Your task to perform on an android device: Add "usb-a to usb-b" to the cart on bestbuy.com Image 0: 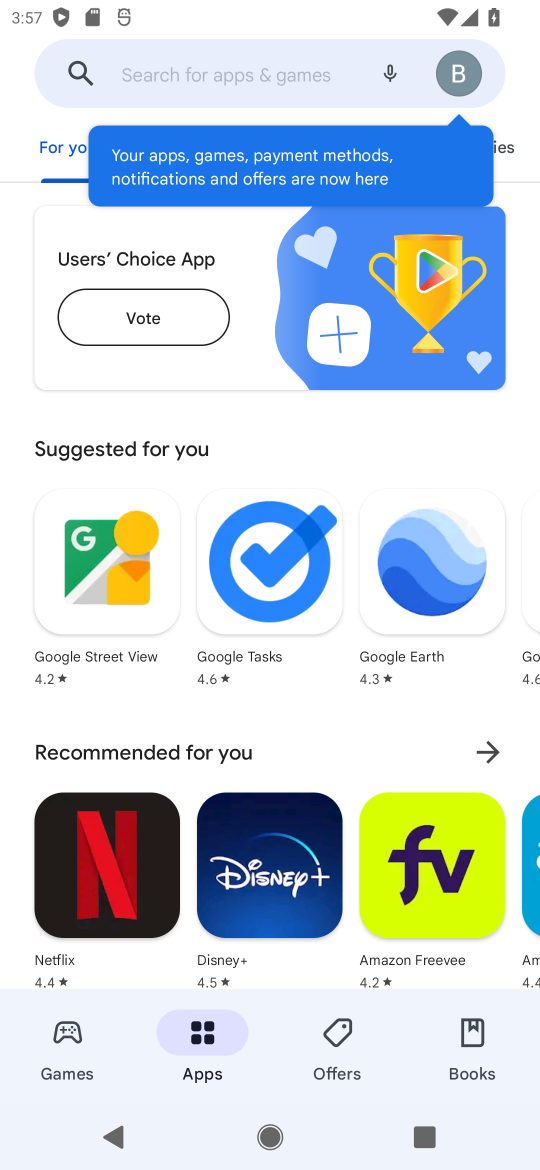
Step 0: press home button
Your task to perform on an android device: Add "usb-a to usb-b" to the cart on bestbuy.com Image 1: 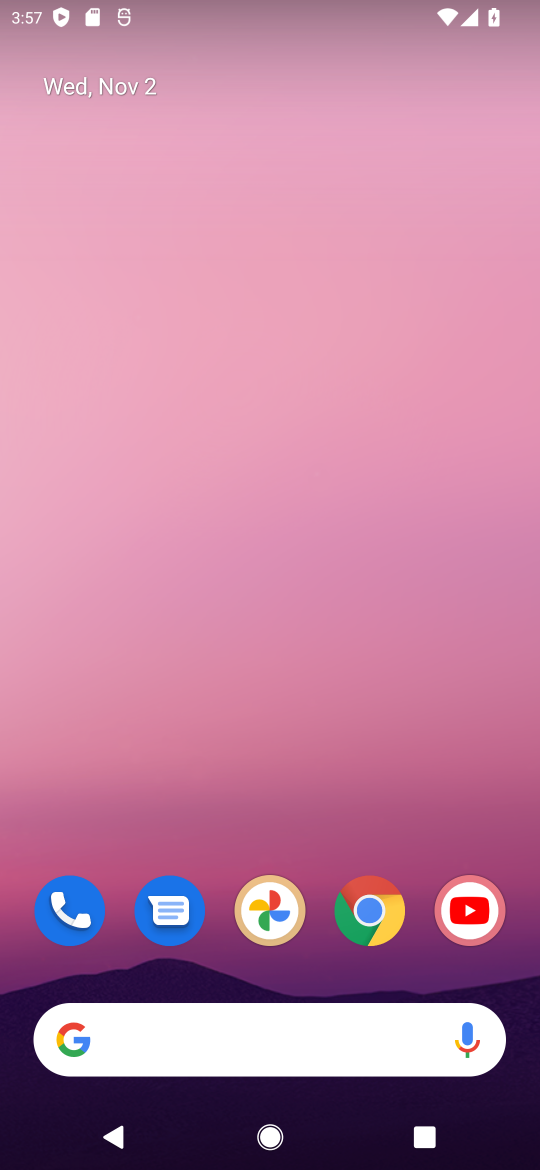
Step 1: click (379, 919)
Your task to perform on an android device: Add "usb-a to usb-b" to the cart on bestbuy.com Image 2: 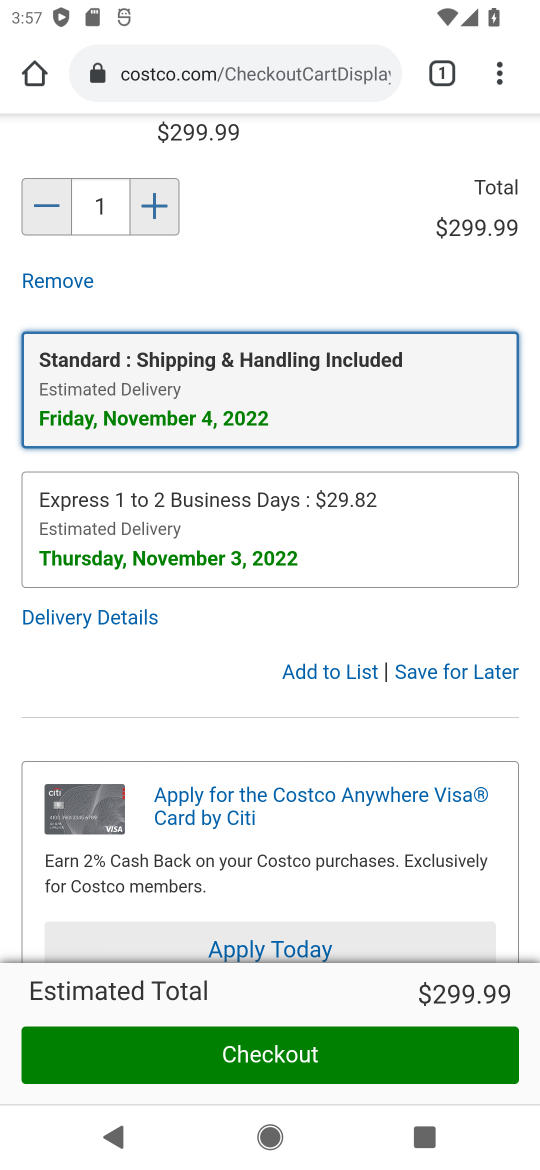
Step 2: click (154, 68)
Your task to perform on an android device: Add "usb-a to usb-b" to the cart on bestbuy.com Image 3: 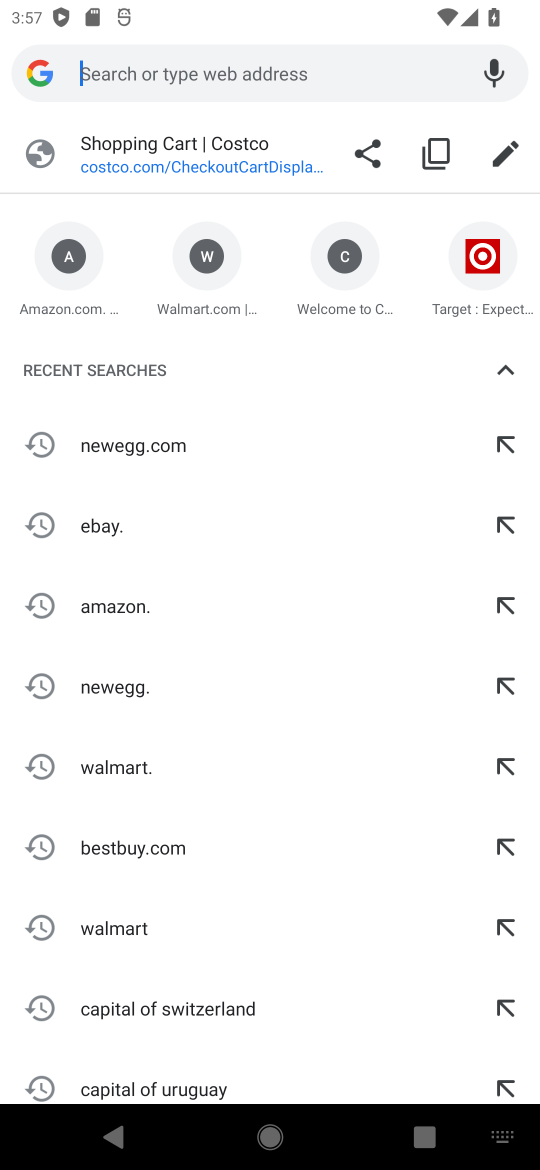
Step 3: type "bestbuy.com"
Your task to perform on an android device: Add "usb-a to usb-b" to the cart on bestbuy.com Image 4: 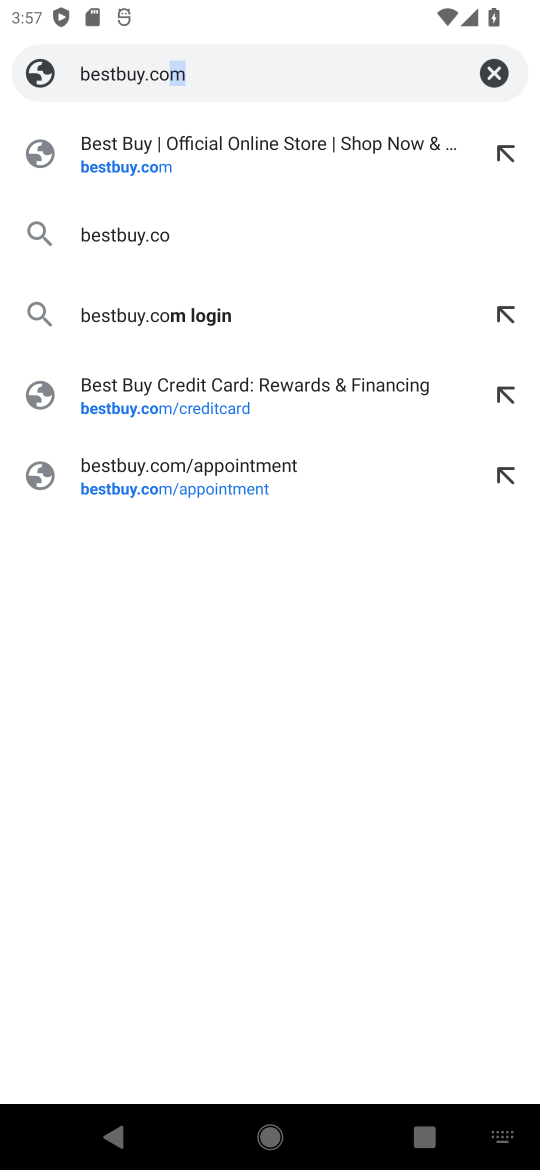
Step 4: type ""
Your task to perform on an android device: Add "usb-a to usb-b" to the cart on bestbuy.com Image 5: 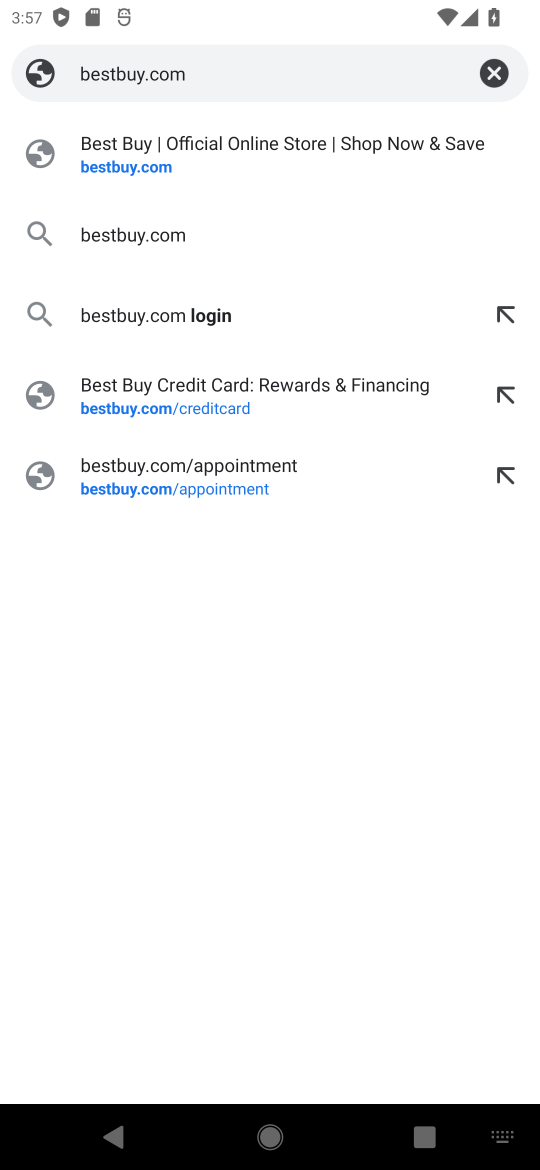
Step 5: click (87, 155)
Your task to perform on an android device: Add "usb-a to usb-b" to the cart on bestbuy.com Image 6: 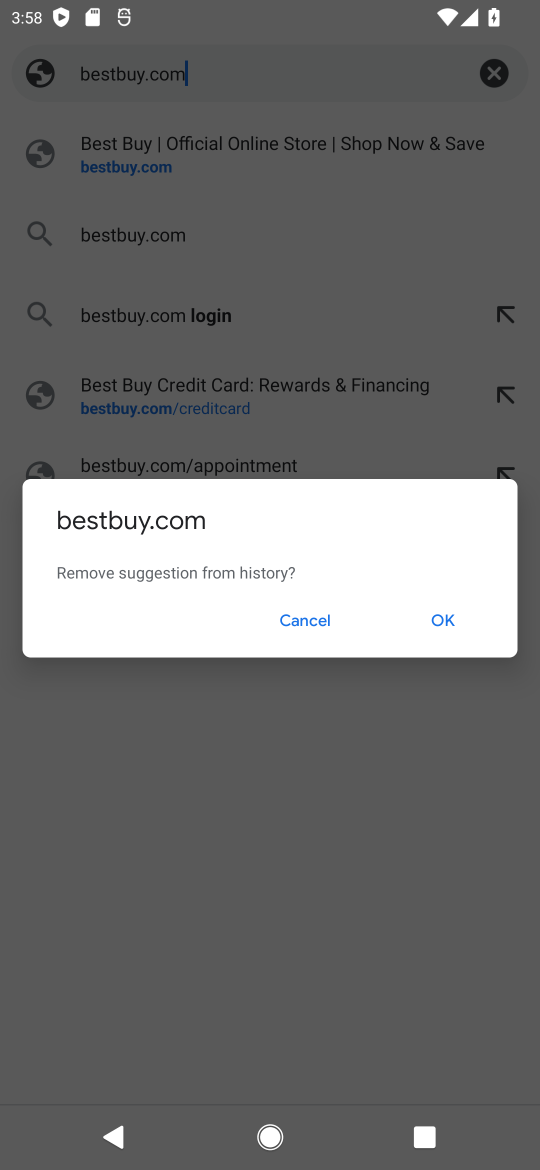
Step 6: click (422, 613)
Your task to perform on an android device: Add "usb-a to usb-b" to the cart on bestbuy.com Image 7: 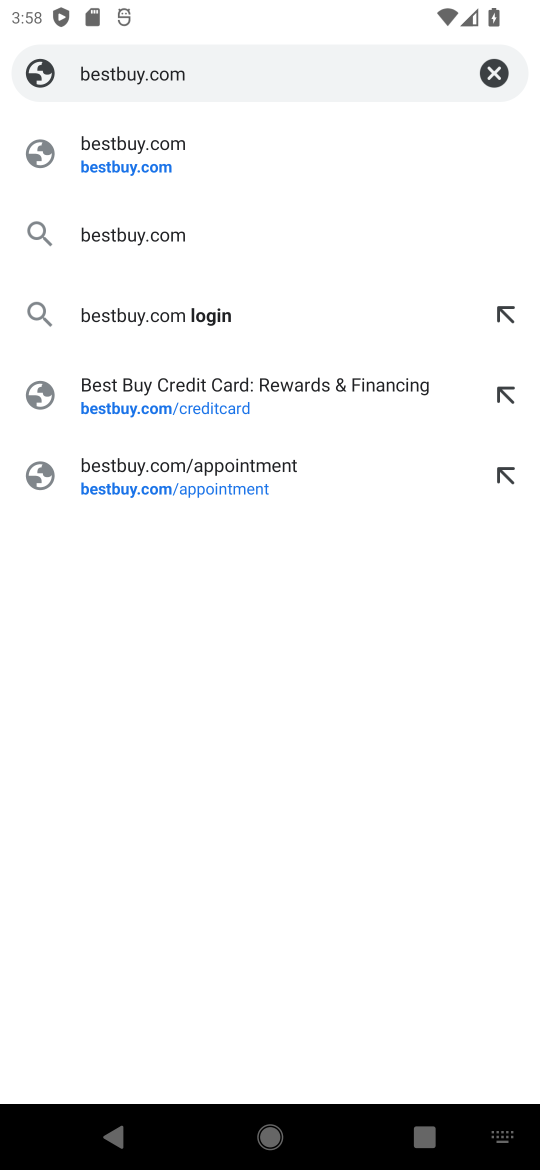
Step 7: click (196, 167)
Your task to perform on an android device: Add "usb-a to usb-b" to the cart on bestbuy.com Image 8: 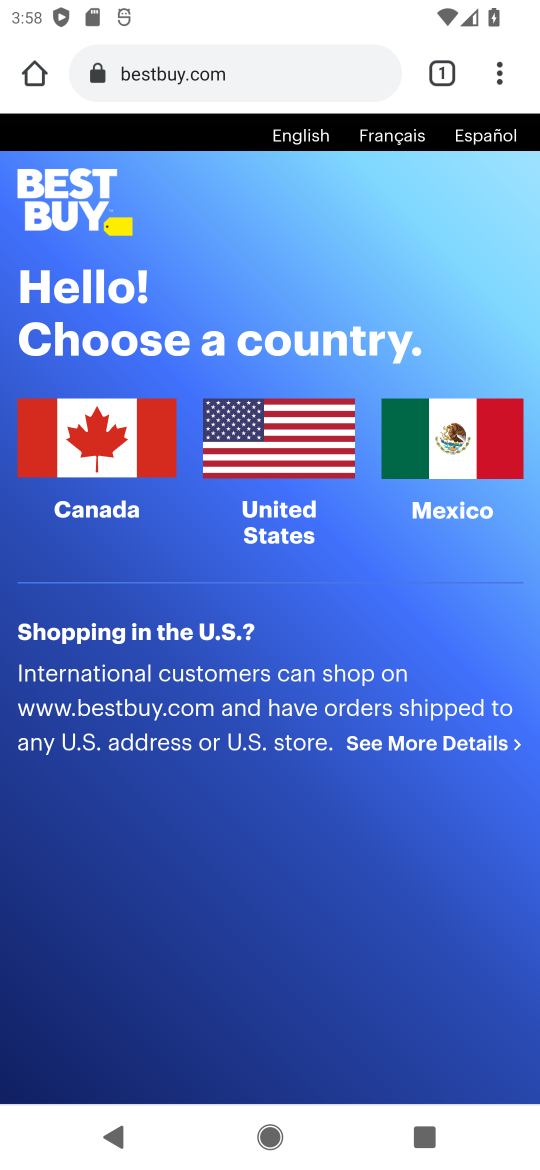
Step 8: click (279, 483)
Your task to perform on an android device: Add "usb-a to usb-b" to the cart on bestbuy.com Image 9: 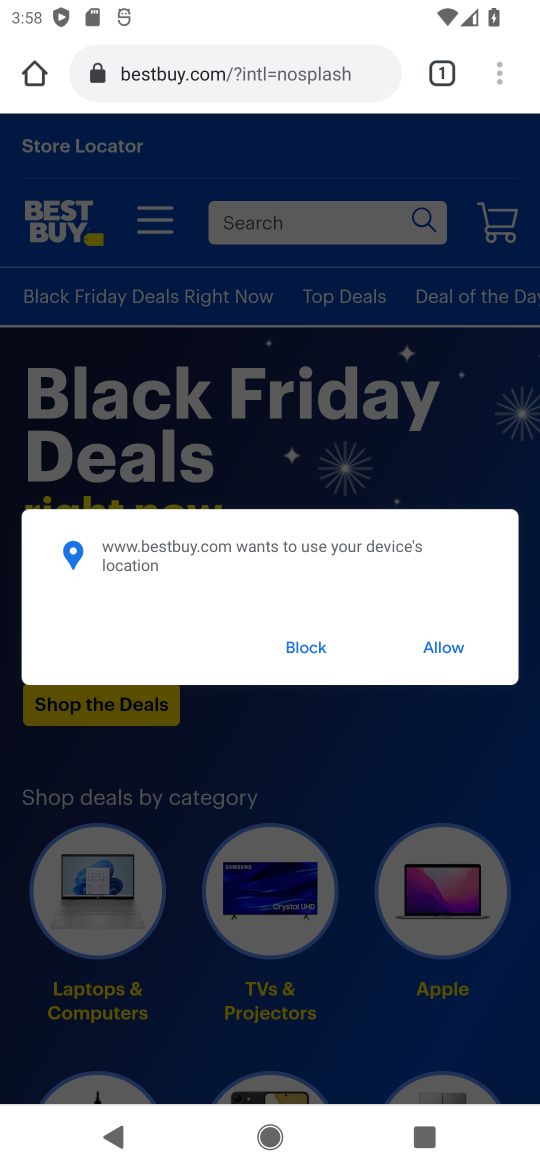
Step 9: click (317, 640)
Your task to perform on an android device: Add "usb-a to usb-b" to the cart on bestbuy.com Image 10: 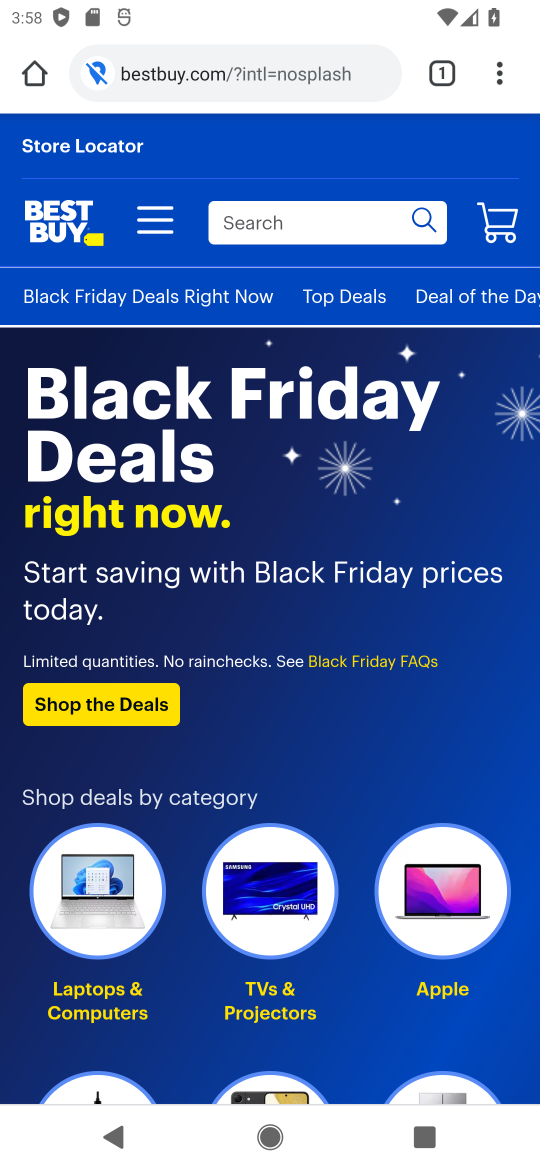
Step 10: click (341, 229)
Your task to perform on an android device: Add "usb-a to usb-b" to the cart on bestbuy.com Image 11: 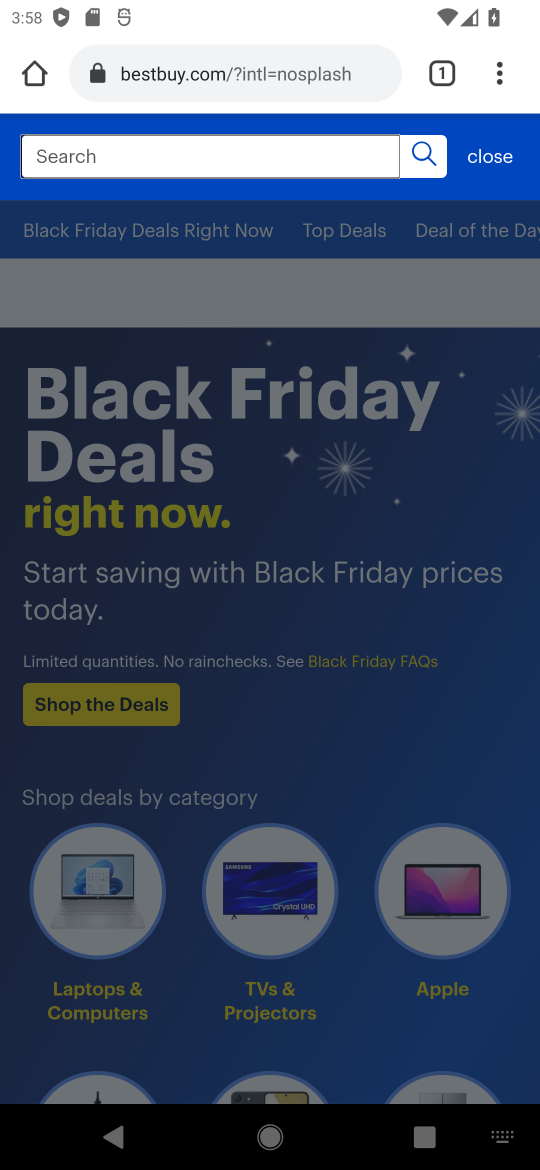
Step 11: click (229, 161)
Your task to perform on an android device: Add "usb-a to usb-b" to the cart on bestbuy.com Image 12: 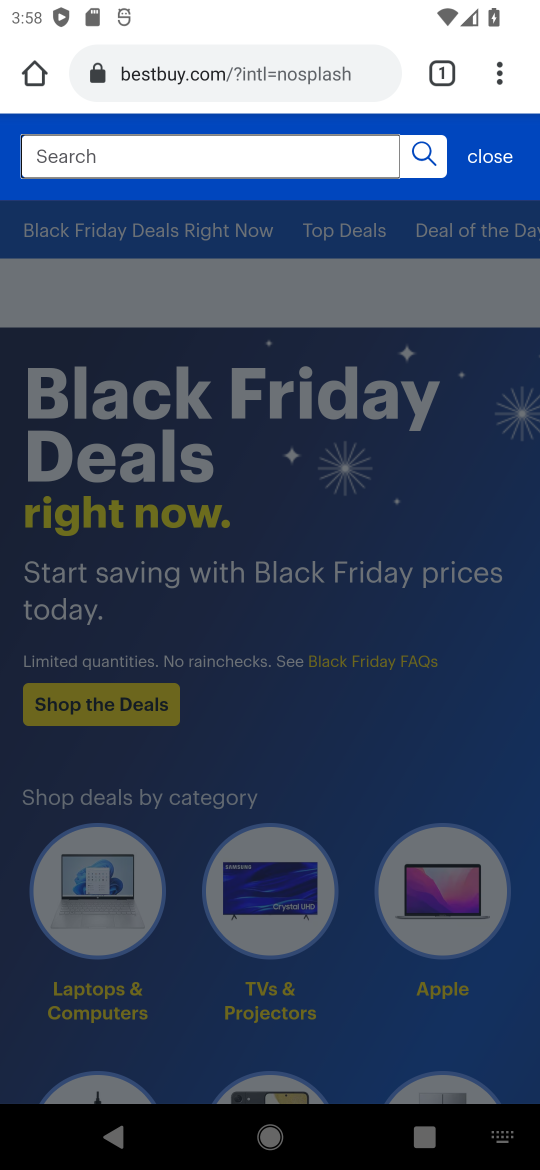
Step 12: type "usb-a to usb-b"
Your task to perform on an android device: Add "usb-a to usb-b" to the cart on bestbuy.com Image 13: 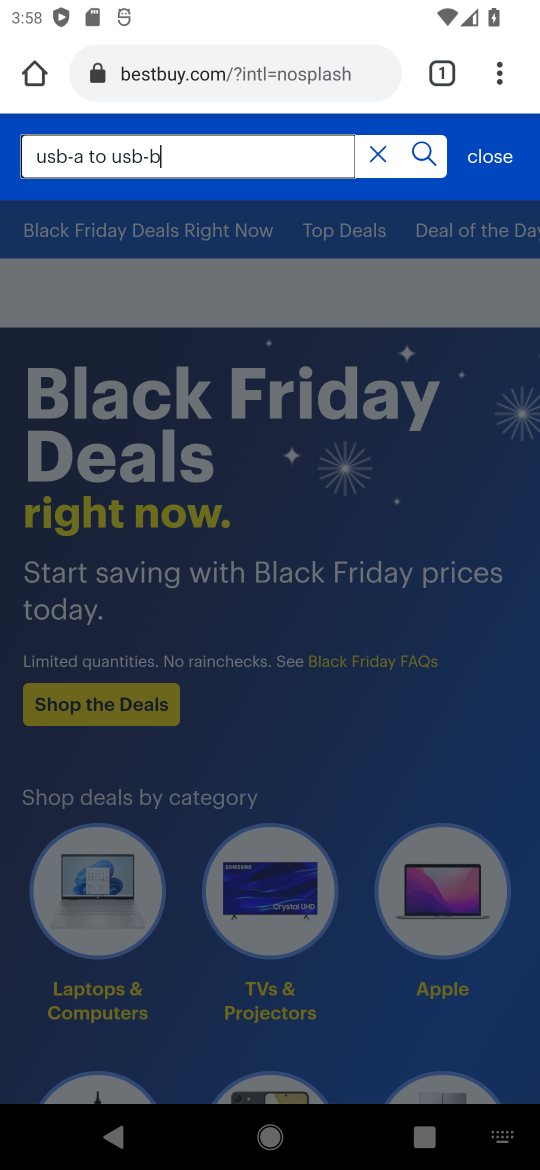
Step 13: type ""
Your task to perform on an android device: Add "usb-a to usb-b" to the cart on bestbuy.com Image 14: 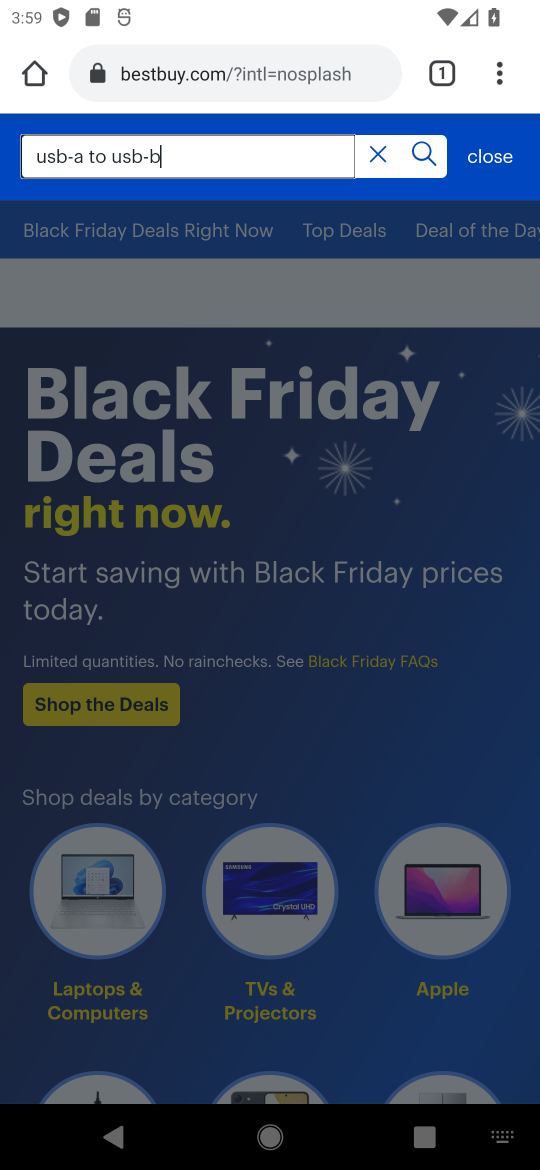
Step 14: click (428, 142)
Your task to perform on an android device: Add "usb-a to usb-b" to the cart on bestbuy.com Image 15: 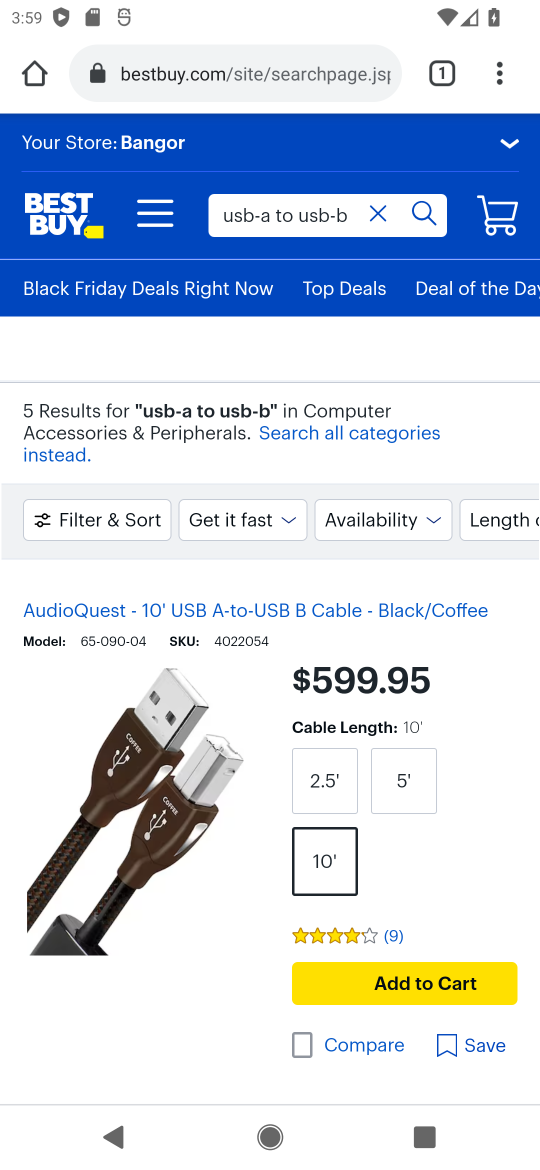
Step 15: click (366, 975)
Your task to perform on an android device: Add "usb-a to usb-b" to the cart on bestbuy.com Image 16: 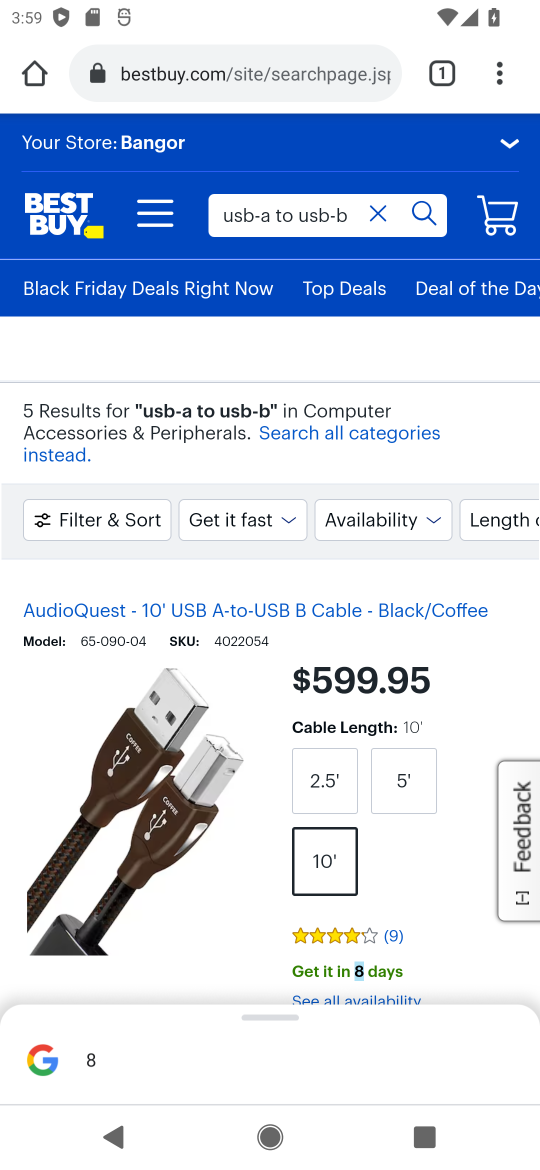
Step 16: drag from (211, 853) to (296, 382)
Your task to perform on an android device: Add "usb-a to usb-b" to the cart on bestbuy.com Image 17: 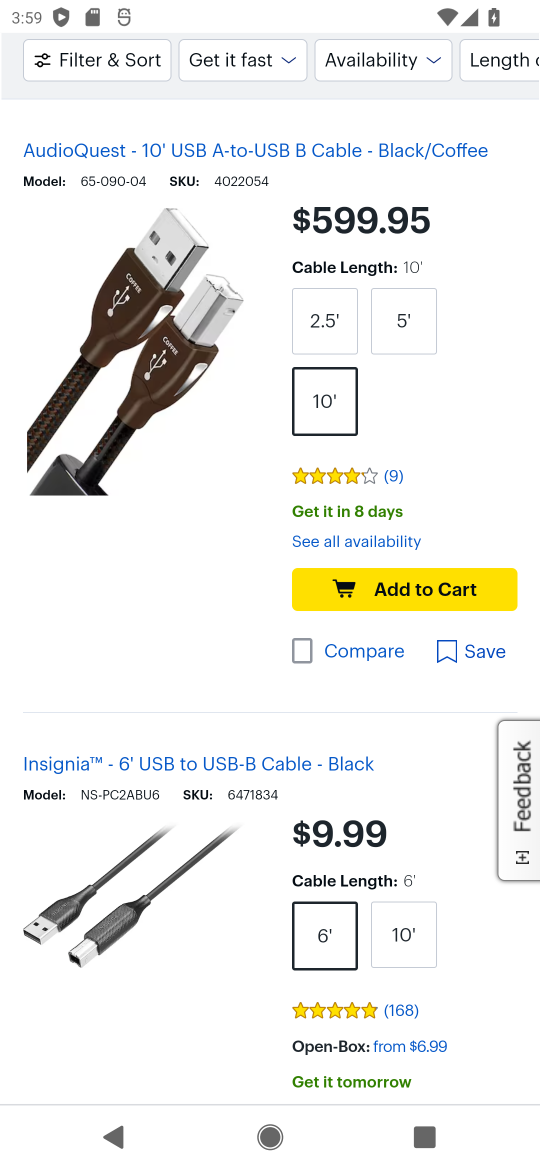
Step 17: click (382, 590)
Your task to perform on an android device: Add "usb-a to usb-b" to the cart on bestbuy.com Image 18: 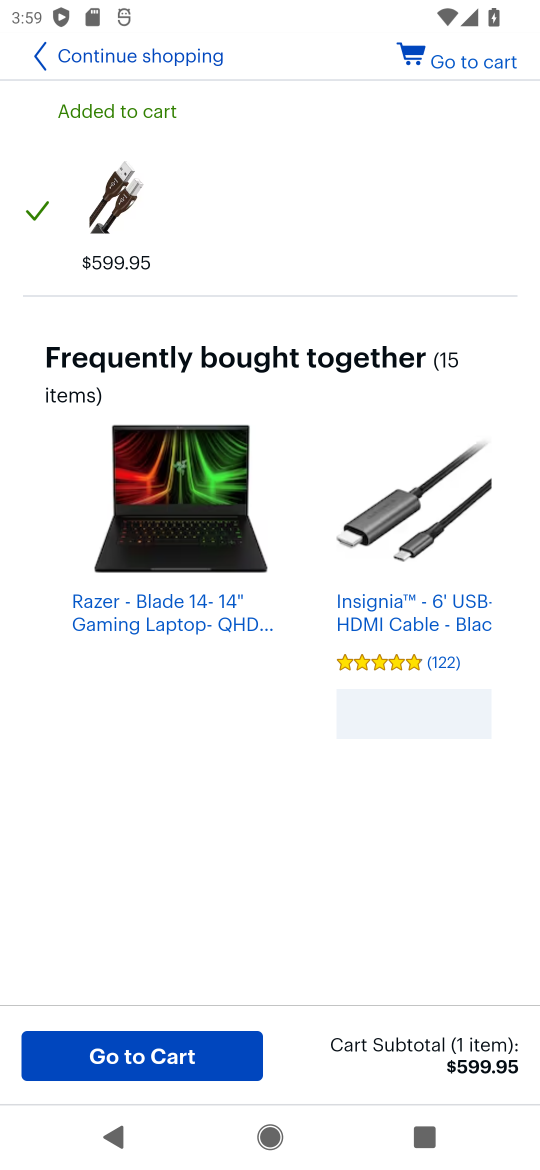
Step 18: click (211, 1047)
Your task to perform on an android device: Add "usb-a to usb-b" to the cart on bestbuy.com Image 19: 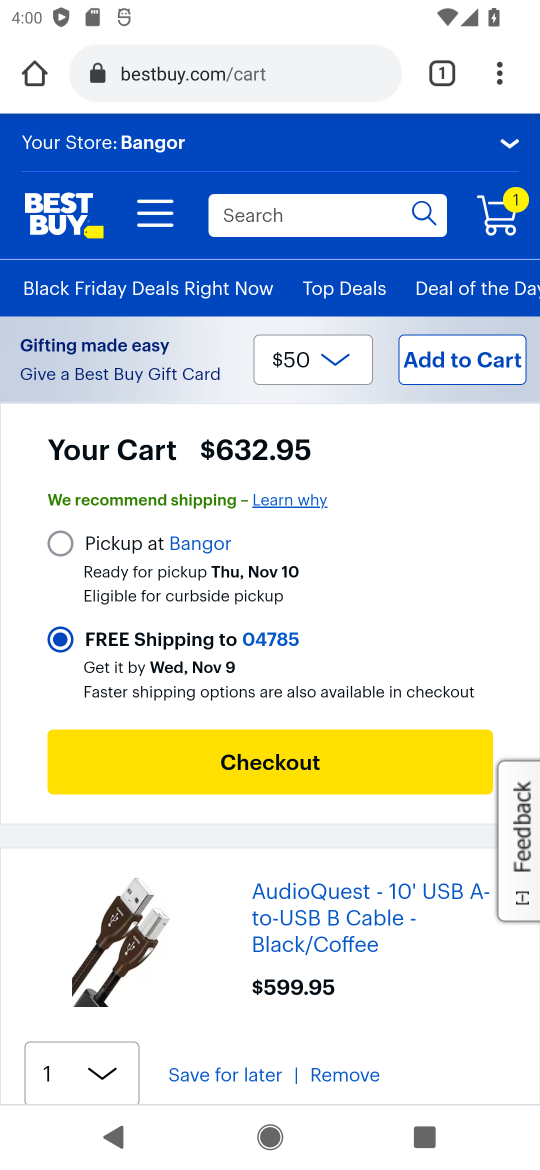
Step 19: click (206, 751)
Your task to perform on an android device: Add "usb-a to usb-b" to the cart on bestbuy.com Image 20: 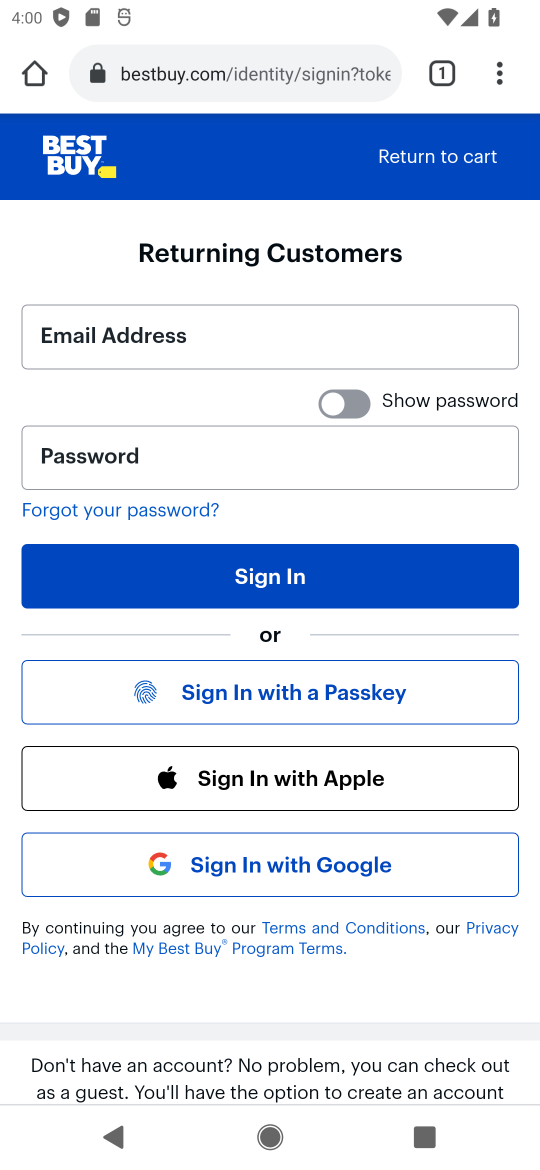
Step 20: drag from (290, 894) to (388, 341)
Your task to perform on an android device: Add "usb-a to usb-b" to the cart on bestbuy.com Image 21: 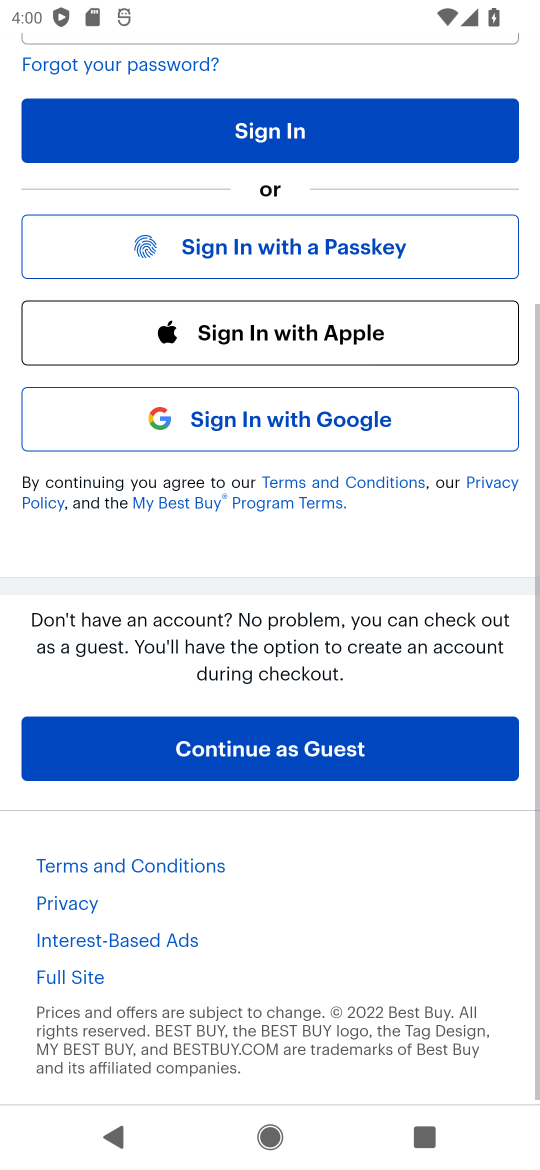
Step 21: drag from (296, 514) to (276, 767)
Your task to perform on an android device: Add "usb-a to usb-b" to the cart on bestbuy.com Image 22: 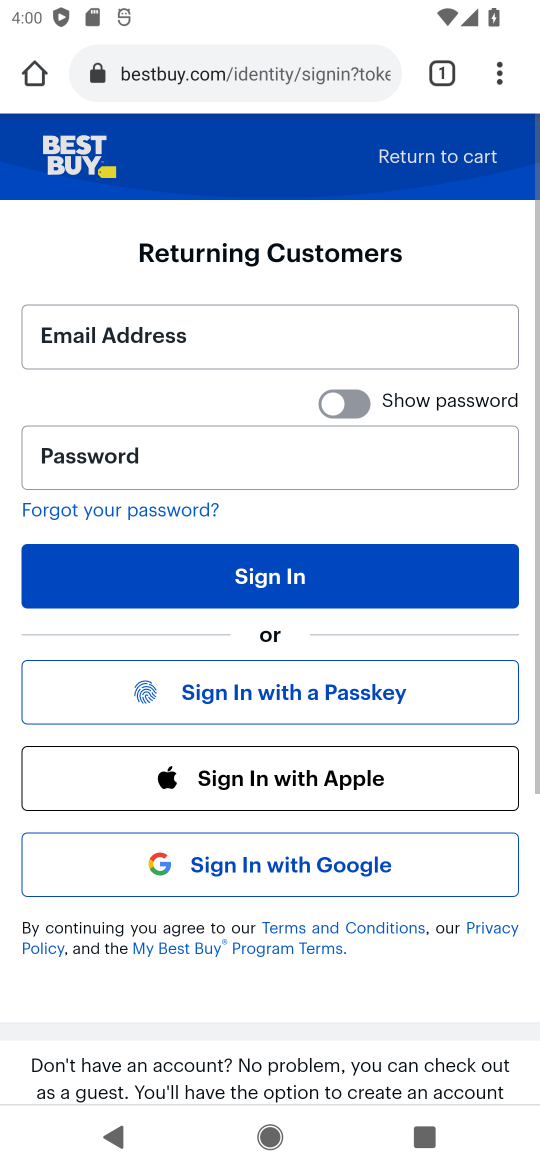
Step 22: drag from (295, 180) to (308, 791)
Your task to perform on an android device: Add "usb-a to usb-b" to the cart on bestbuy.com Image 23: 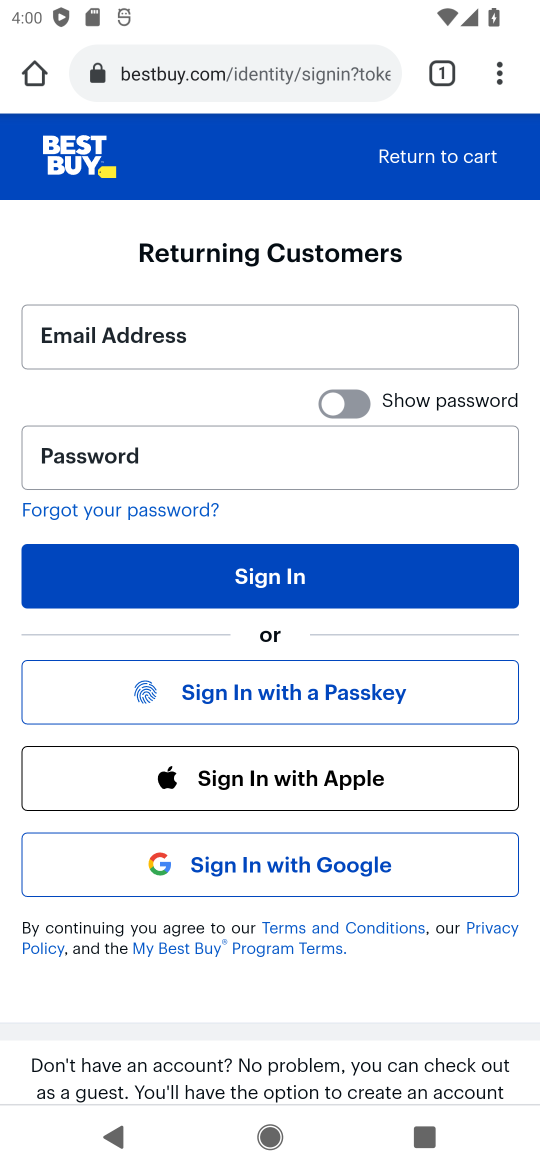
Step 23: drag from (291, 494) to (328, 791)
Your task to perform on an android device: Add "usb-a to usb-b" to the cart on bestbuy.com Image 24: 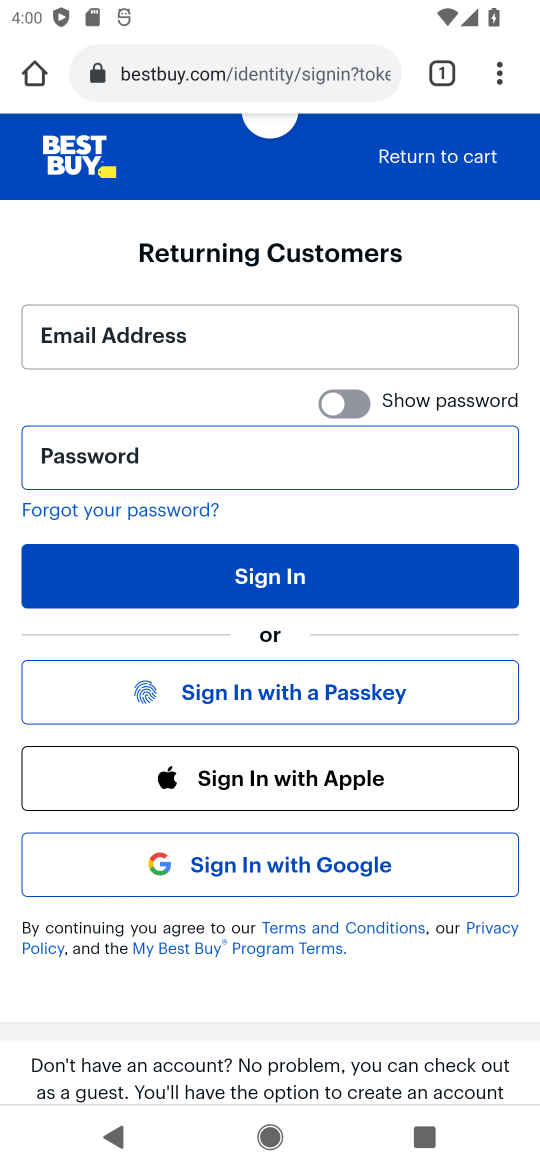
Step 24: drag from (292, 409) to (299, 643)
Your task to perform on an android device: Add "usb-a to usb-b" to the cart on bestbuy.com Image 25: 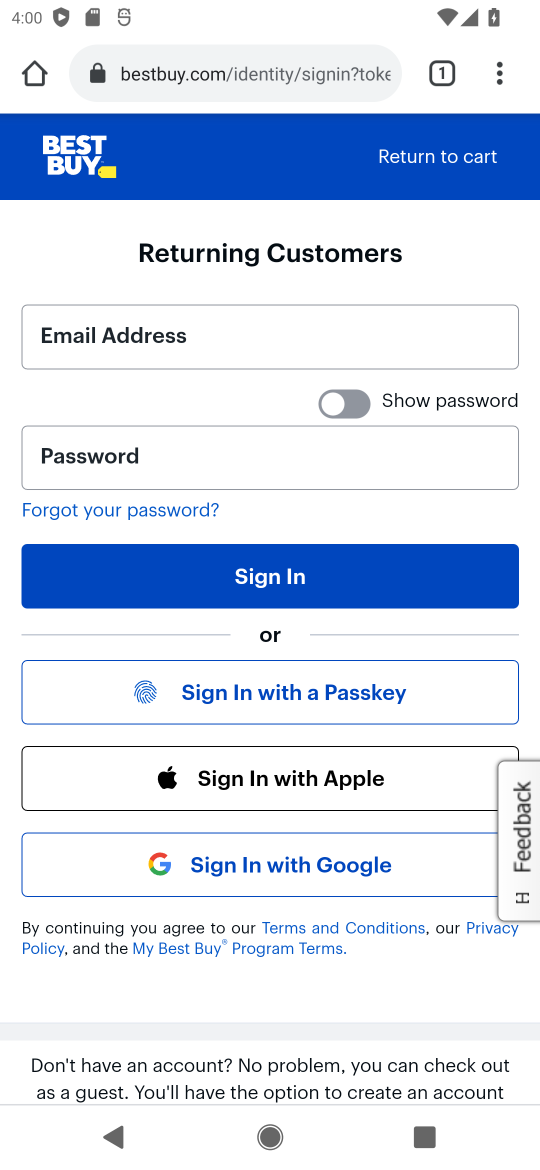
Step 25: press back button
Your task to perform on an android device: Add "usb-a to usb-b" to the cart on bestbuy.com Image 26: 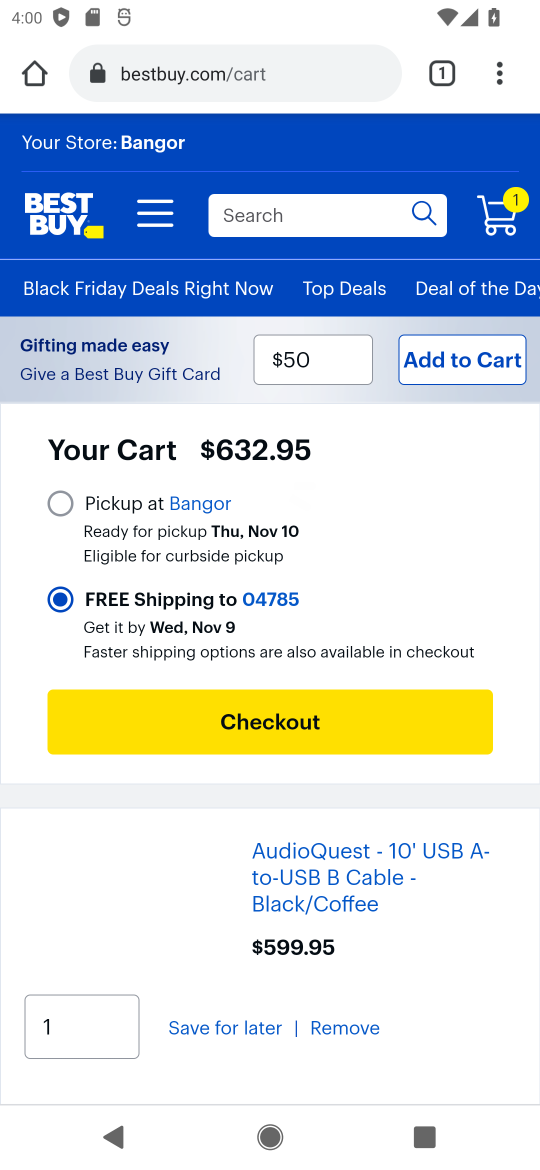
Step 26: click (484, 223)
Your task to perform on an android device: Add "usb-a to usb-b" to the cart on bestbuy.com Image 27: 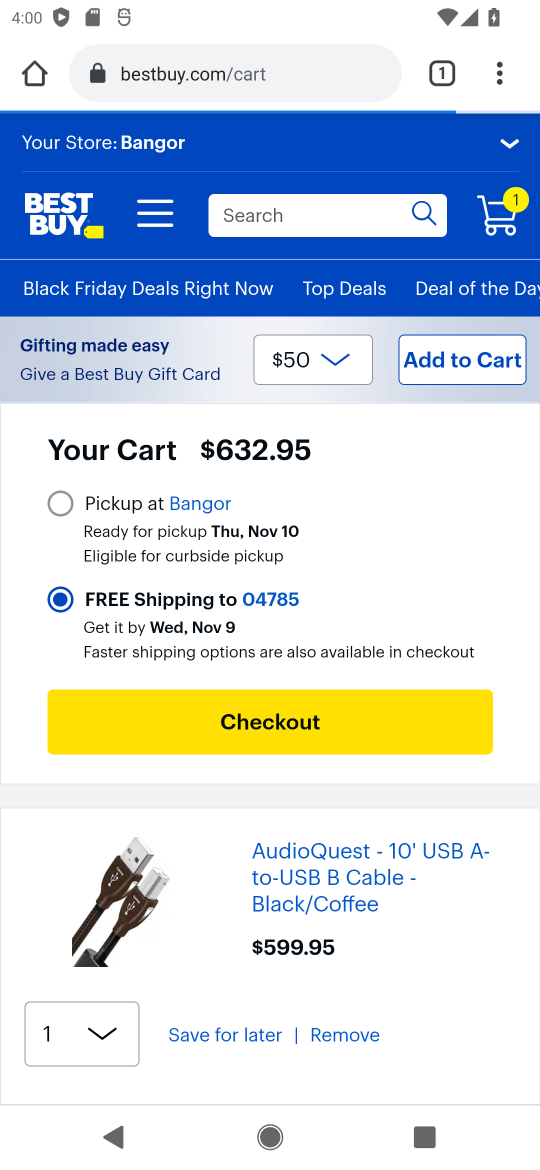
Step 27: click (304, 721)
Your task to perform on an android device: Add "usb-a to usb-b" to the cart on bestbuy.com Image 28: 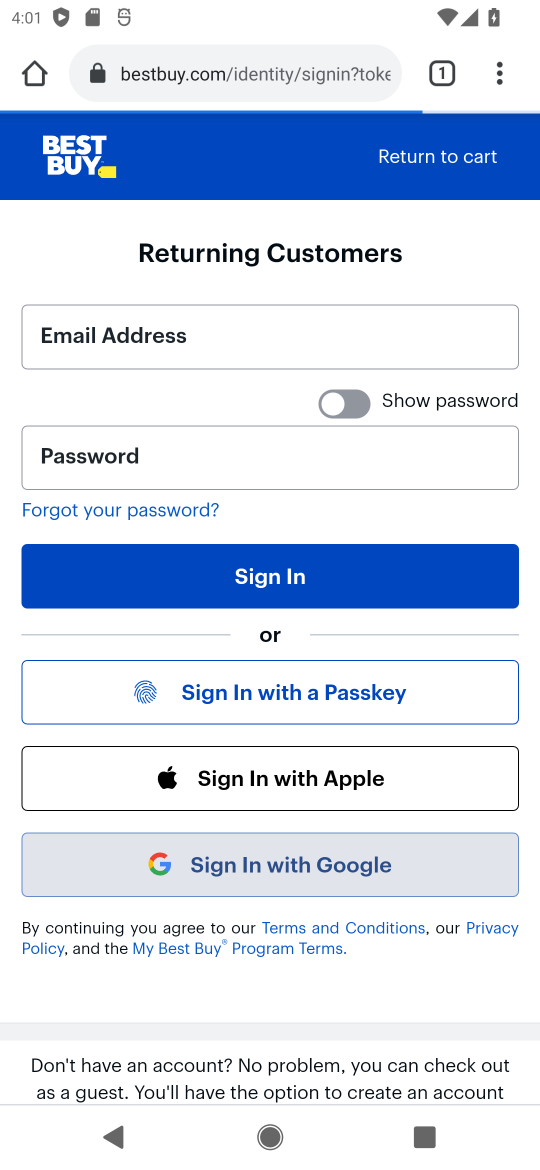
Step 28: task complete